Your task to perform on an android device: Go to Wikipedia Image 0: 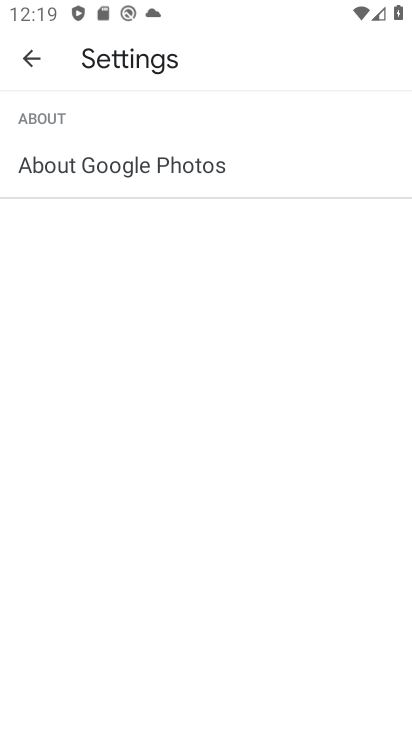
Step 0: press home button
Your task to perform on an android device: Go to Wikipedia Image 1: 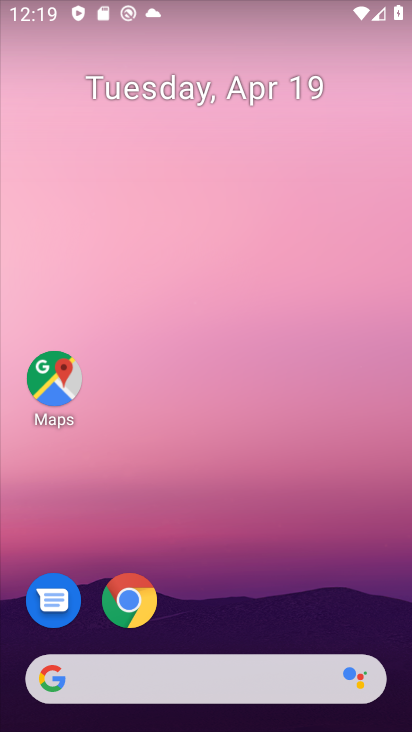
Step 1: click (140, 603)
Your task to perform on an android device: Go to Wikipedia Image 2: 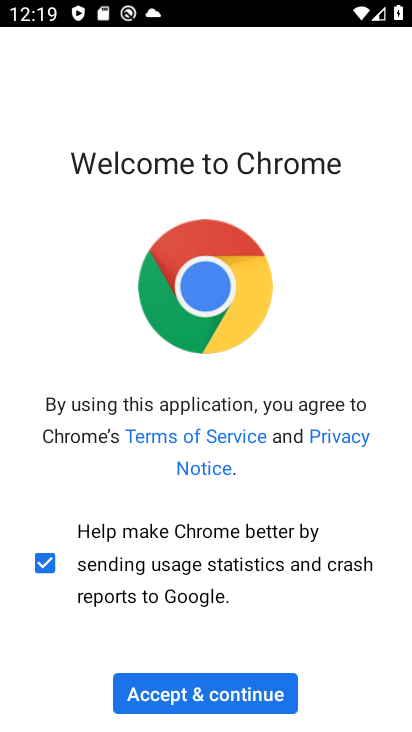
Step 2: click (195, 692)
Your task to perform on an android device: Go to Wikipedia Image 3: 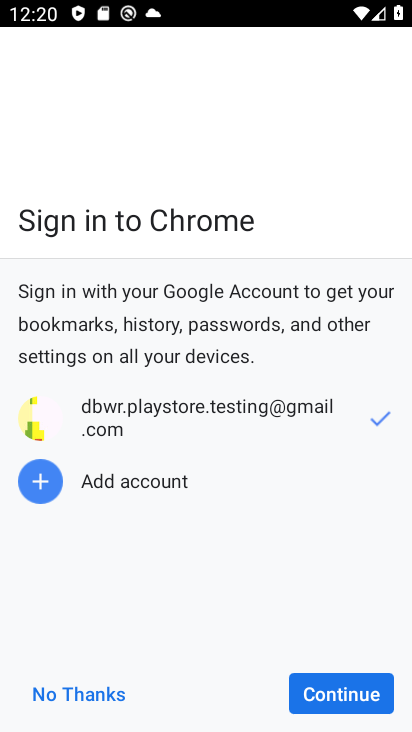
Step 3: click (311, 692)
Your task to perform on an android device: Go to Wikipedia Image 4: 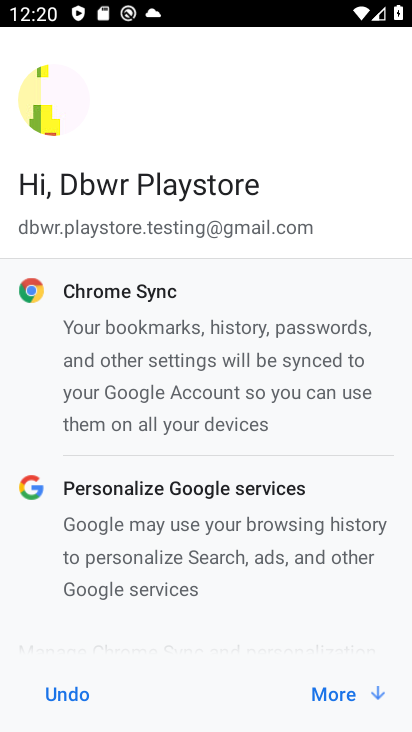
Step 4: click (338, 698)
Your task to perform on an android device: Go to Wikipedia Image 5: 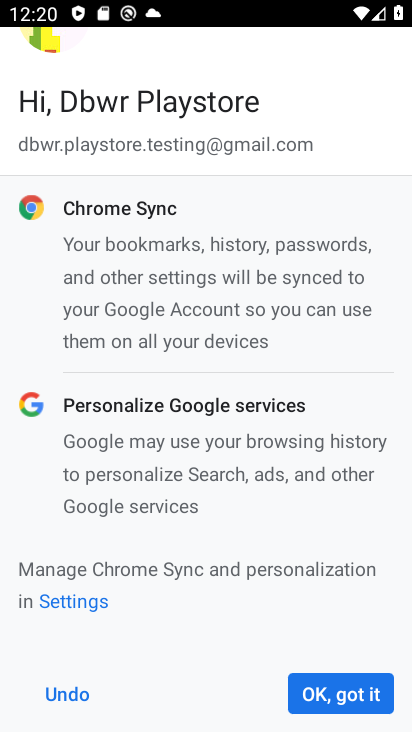
Step 5: click (338, 698)
Your task to perform on an android device: Go to Wikipedia Image 6: 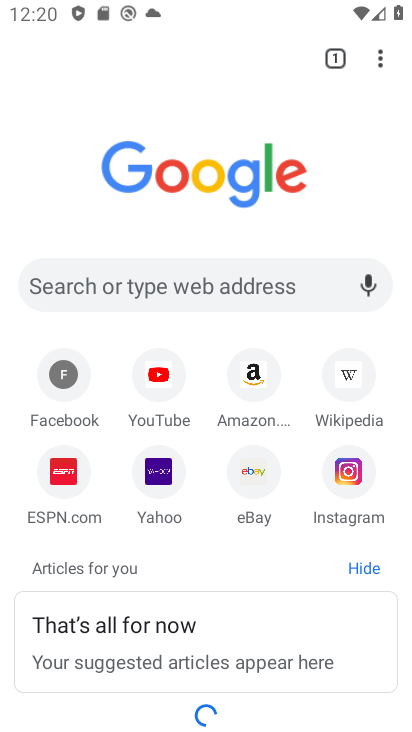
Step 6: click (350, 383)
Your task to perform on an android device: Go to Wikipedia Image 7: 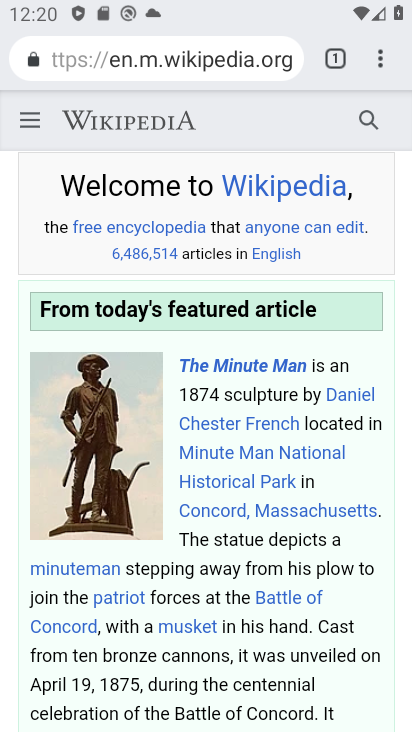
Step 7: task complete